Your task to perform on an android device: all mails in gmail Image 0: 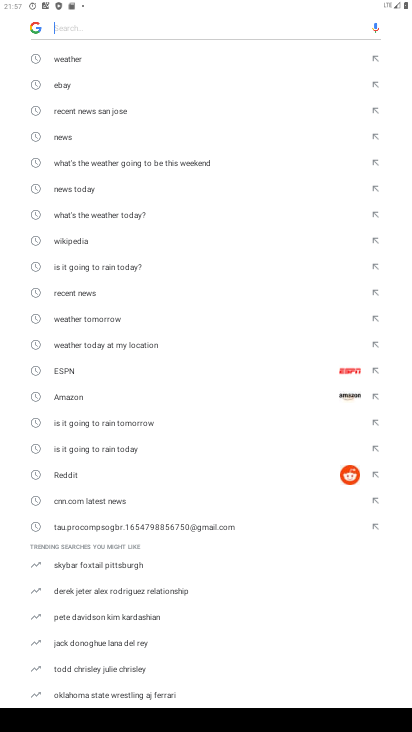
Step 0: press home button
Your task to perform on an android device: all mails in gmail Image 1: 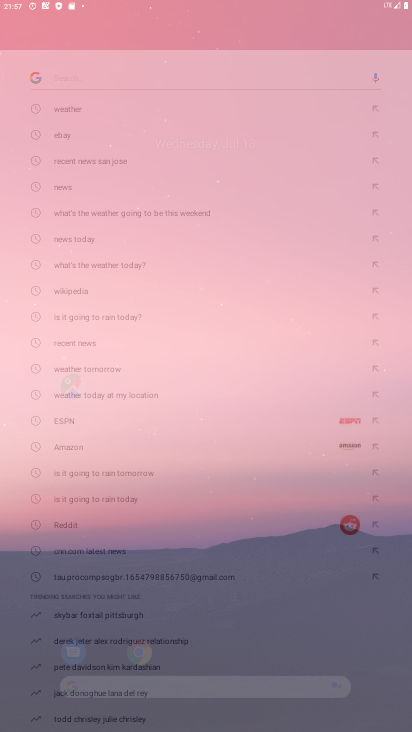
Step 1: drag from (208, 606) to (239, 152)
Your task to perform on an android device: all mails in gmail Image 2: 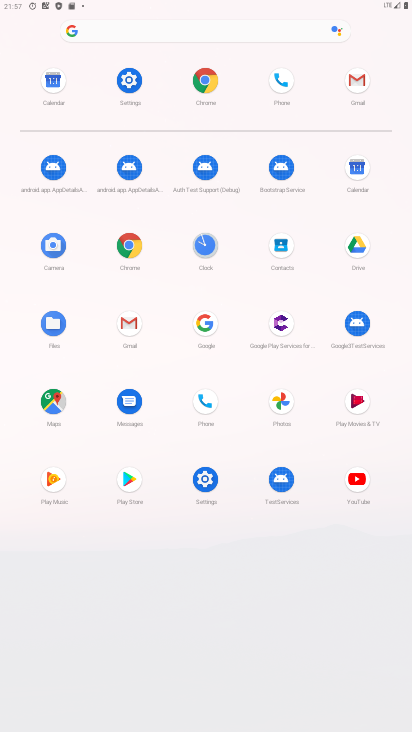
Step 2: click (125, 315)
Your task to perform on an android device: all mails in gmail Image 3: 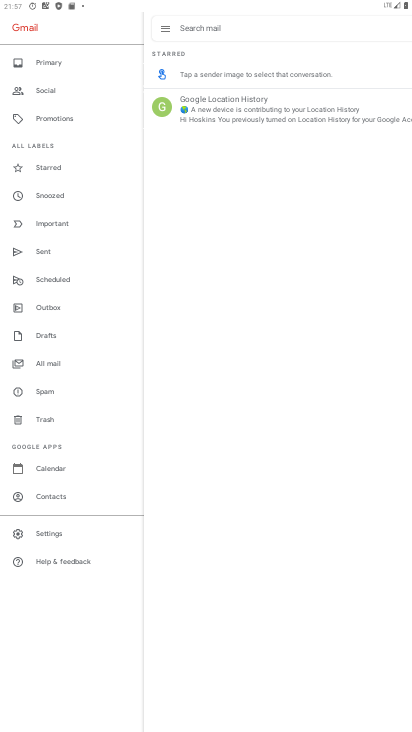
Step 3: click (56, 357)
Your task to perform on an android device: all mails in gmail Image 4: 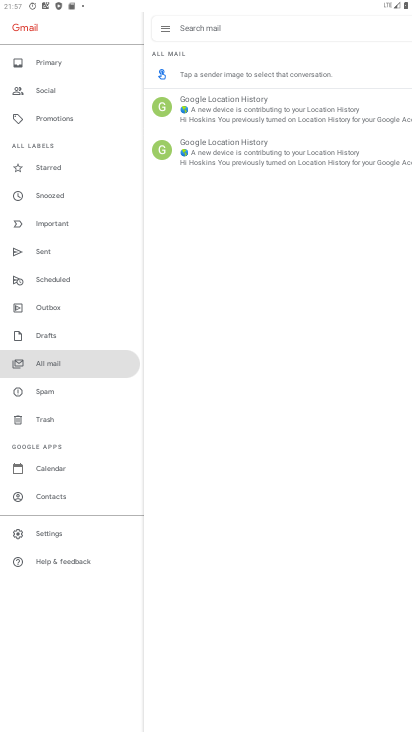
Step 4: drag from (235, 500) to (226, 250)
Your task to perform on an android device: all mails in gmail Image 5: 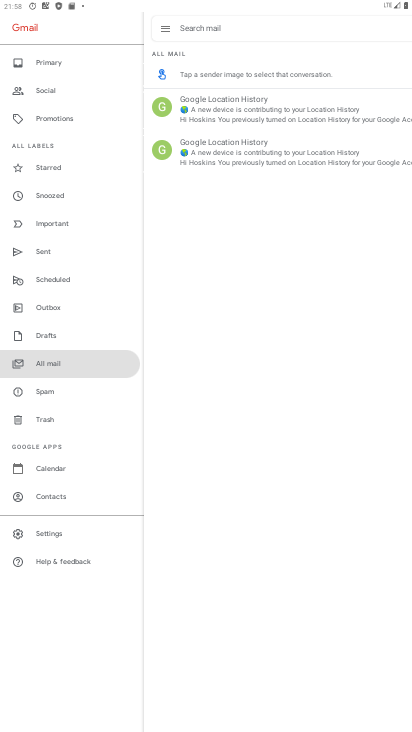
Step 5: drag from (237, 517) to (249, 270)
Your task to perform on an android device: all mails in gmail Image 6: 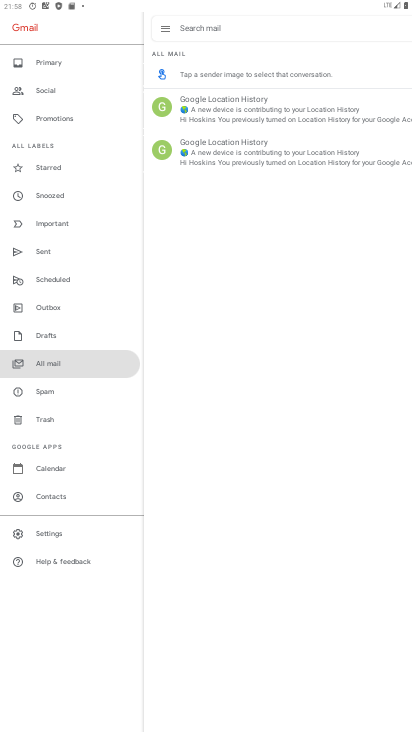
Step 6: drag from (181, 583) to (243, 240)
Your task to perform on an android device: all mails in gmail Image 7: 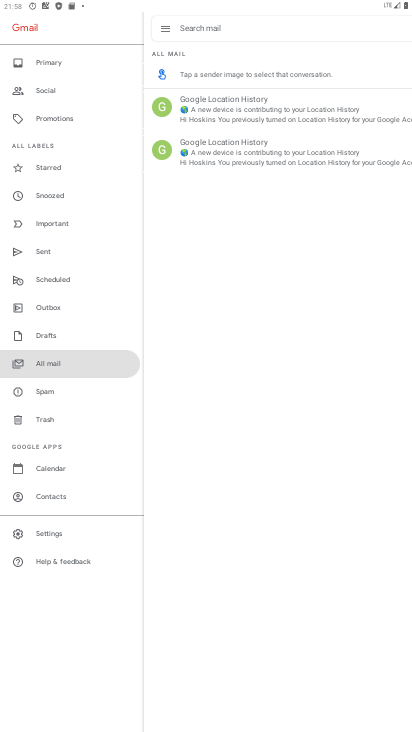
Step 7: click (89, 359)
Your task to perform on an android device: all mails in gmail Image 8: 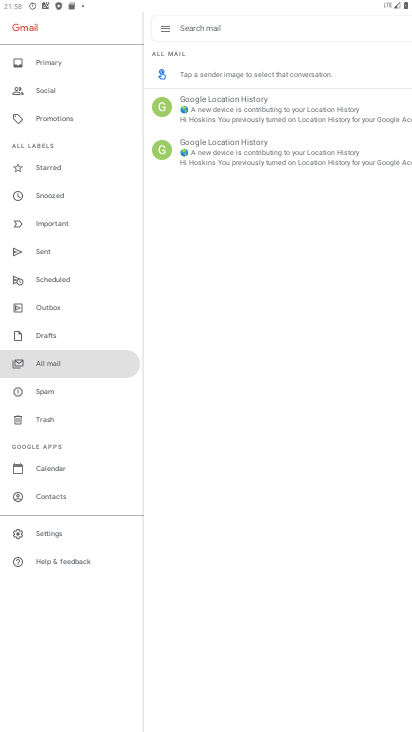
Step 8: task complete